Your task to perform on an android device: uninstall "ZOOM Cloud Meetings" Image 0: 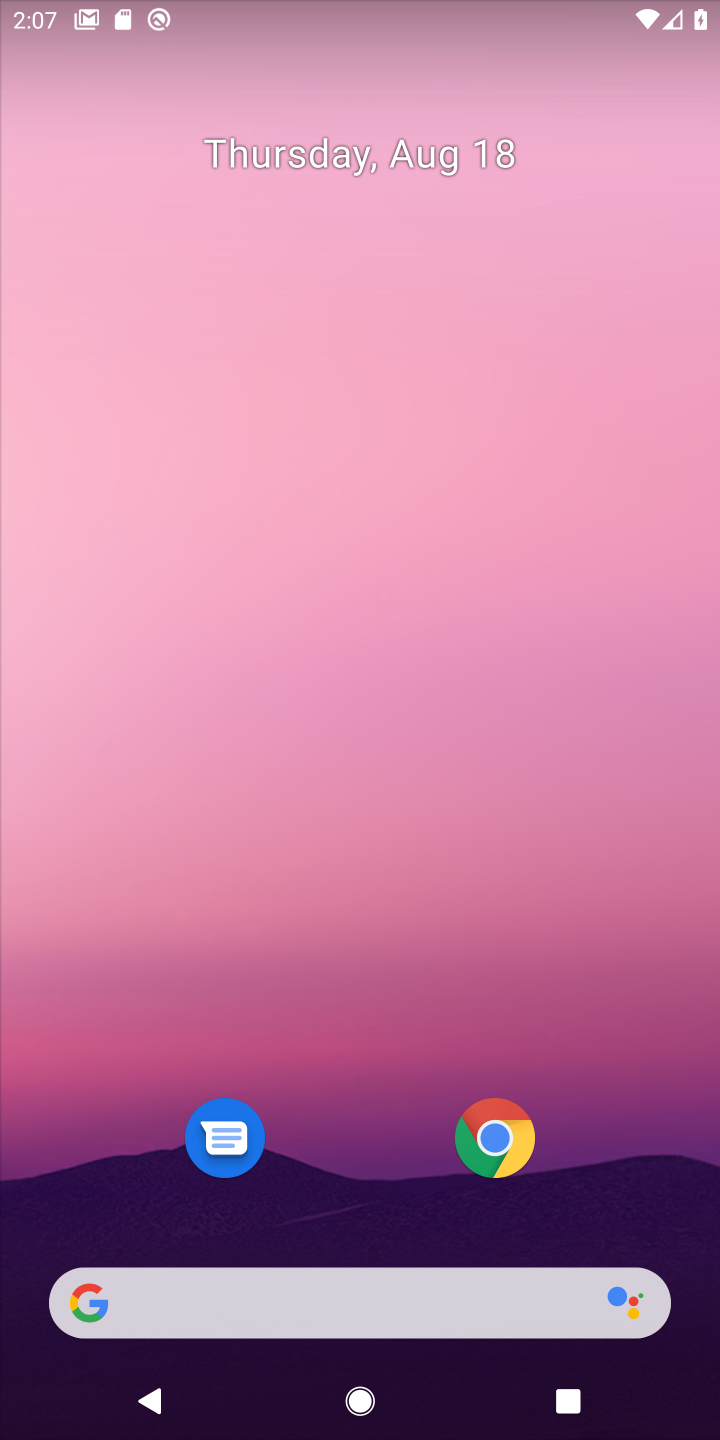
Step 0: drag from (359, 1341) to (440, 264)
Your task to perform on an android device: uninstall "ZOOM Cloud Meetings" Image 1: 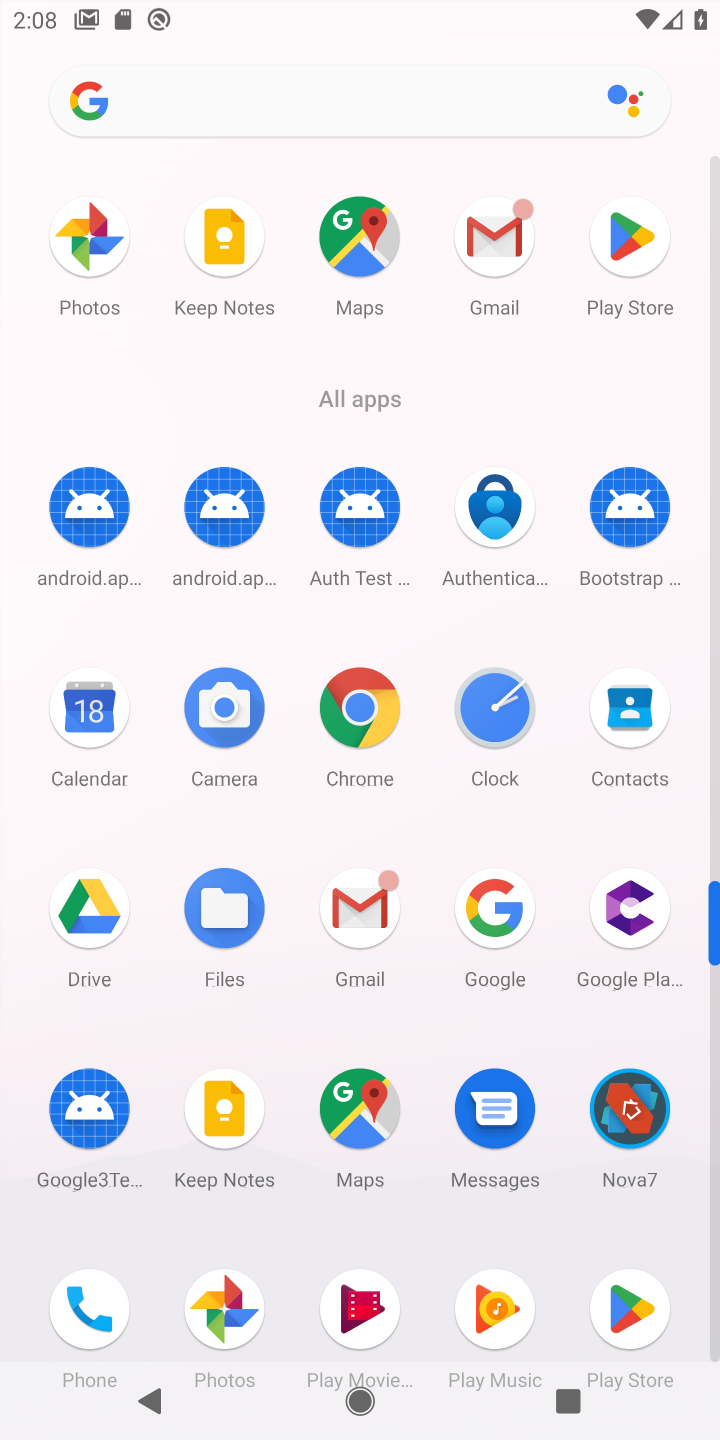
Step 1: drag from (491, 1099) to (593, 309)
Your task to perform on an android device: uninstall "ZOOM Cloud Meetings" Image 2: 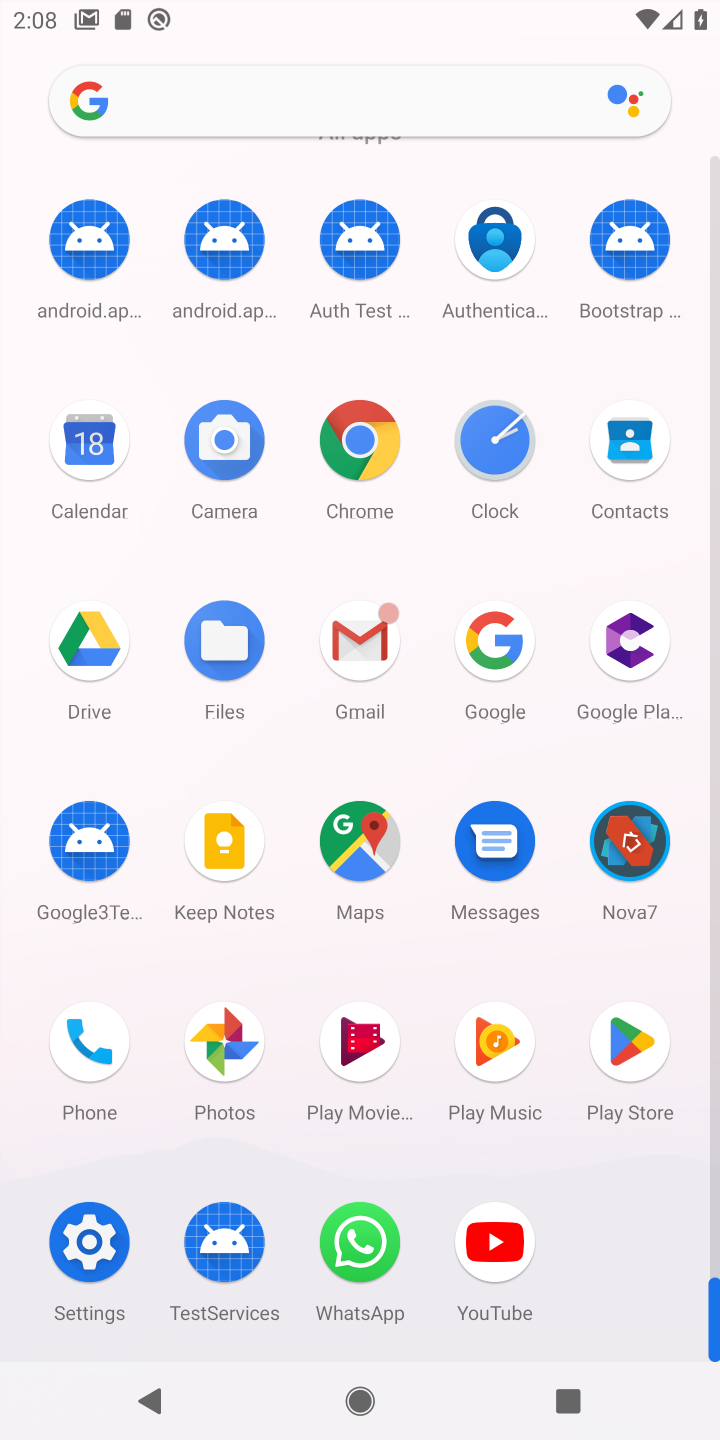
Step 2: click (628, 1048)
Your task to perform on an android device: uninstall "ZOOM Cloud Meetings" Image 3: 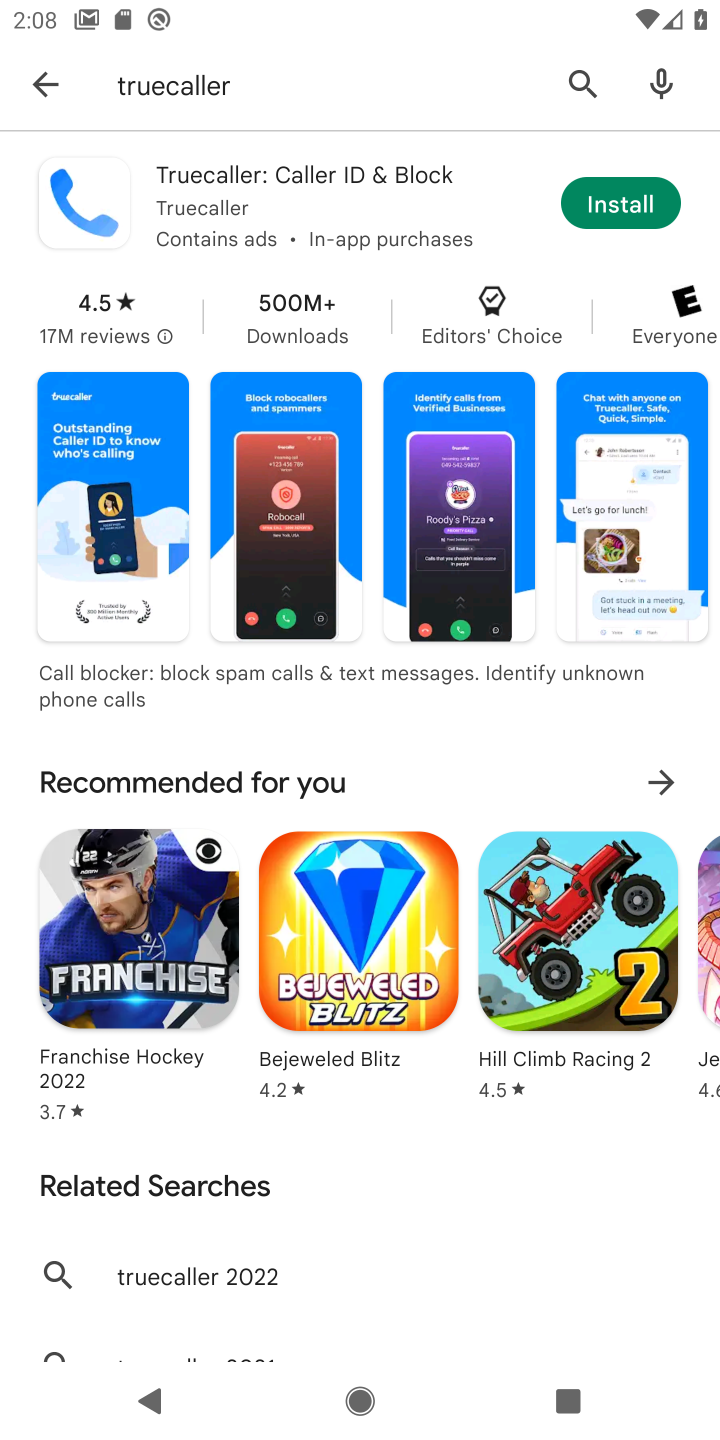
Step 3: click (41, 96)
Your task to perform on an android device: uninstall "ZOOM Cloud Meetings" Image 4: 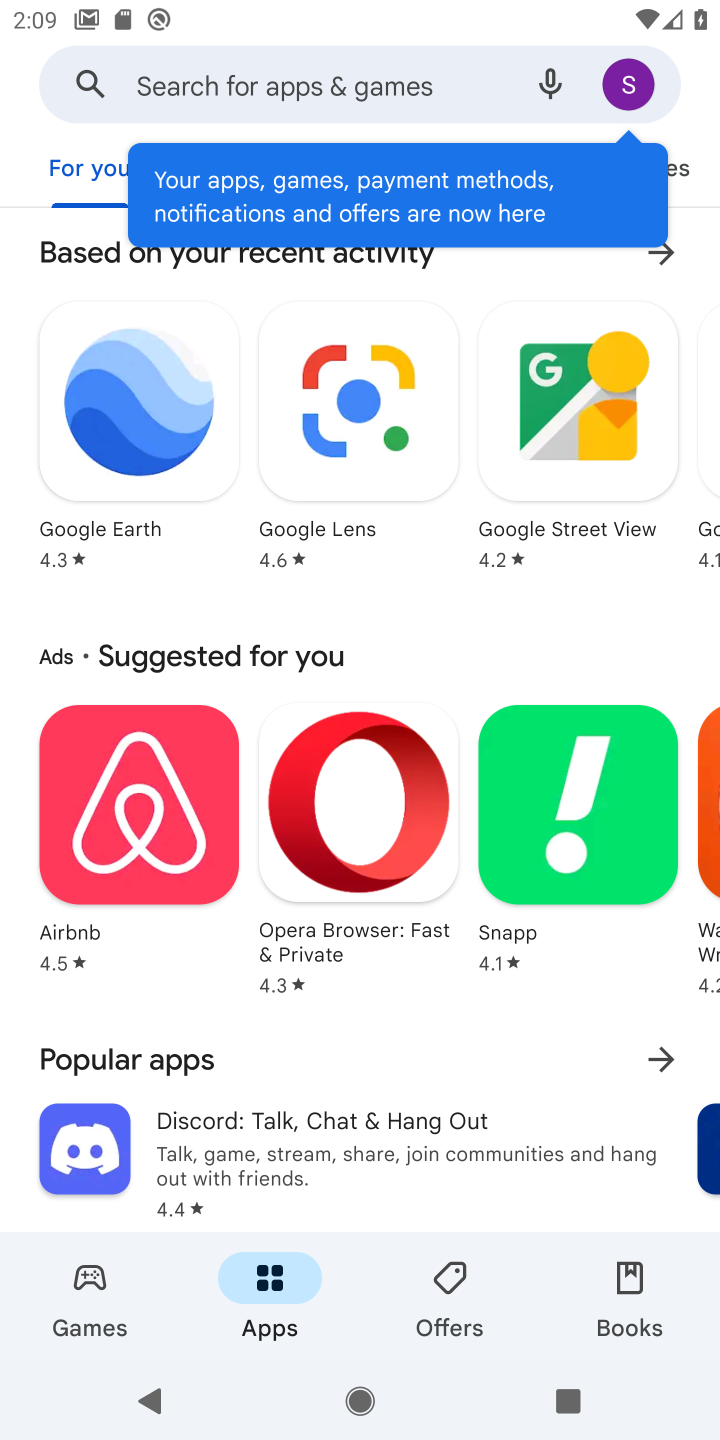
Step 4: click (231, 79)
Your task to perform on an android device: uninstall "ZOOM Cloud Meetings" Image 5: 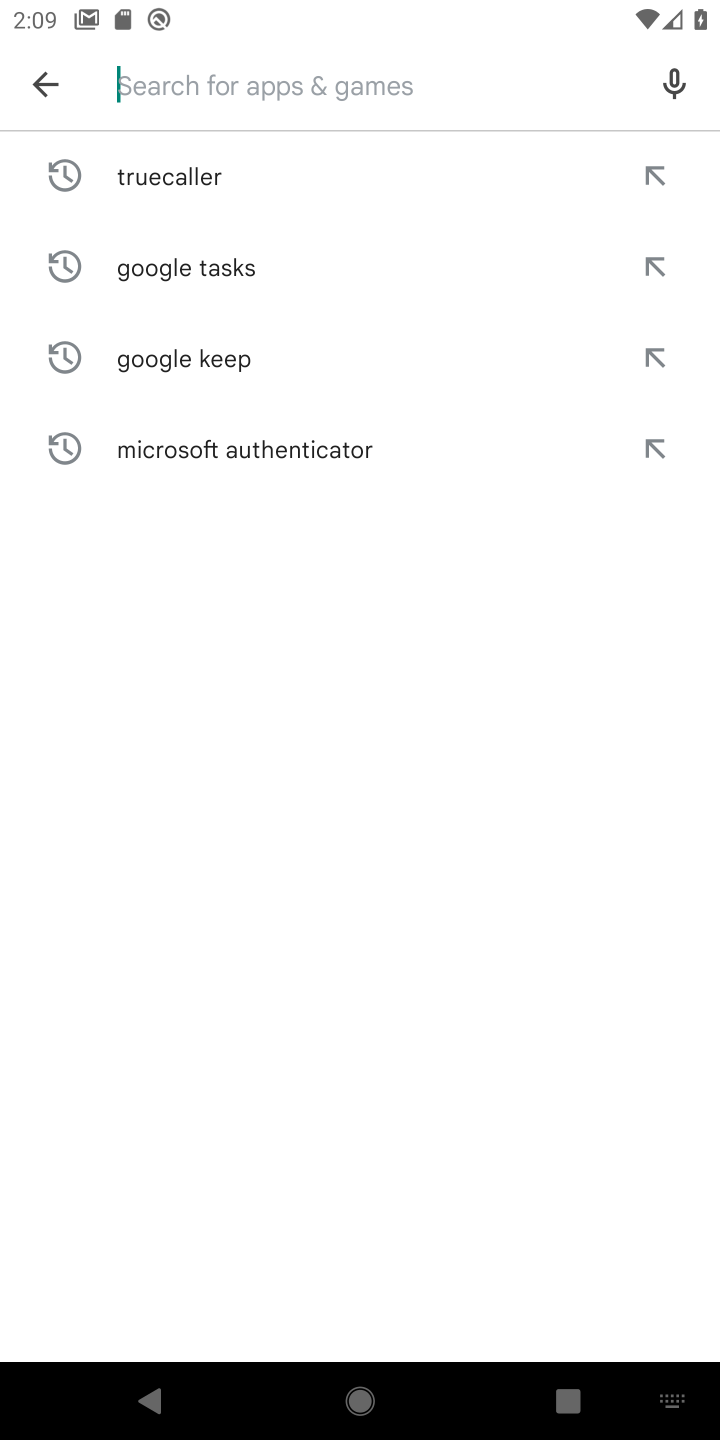
Step 5: type "ZOOM Cloud Meetings"
Your task to perform on an android device: uninstall "ZOOM Cloud Meetings" Image 6: 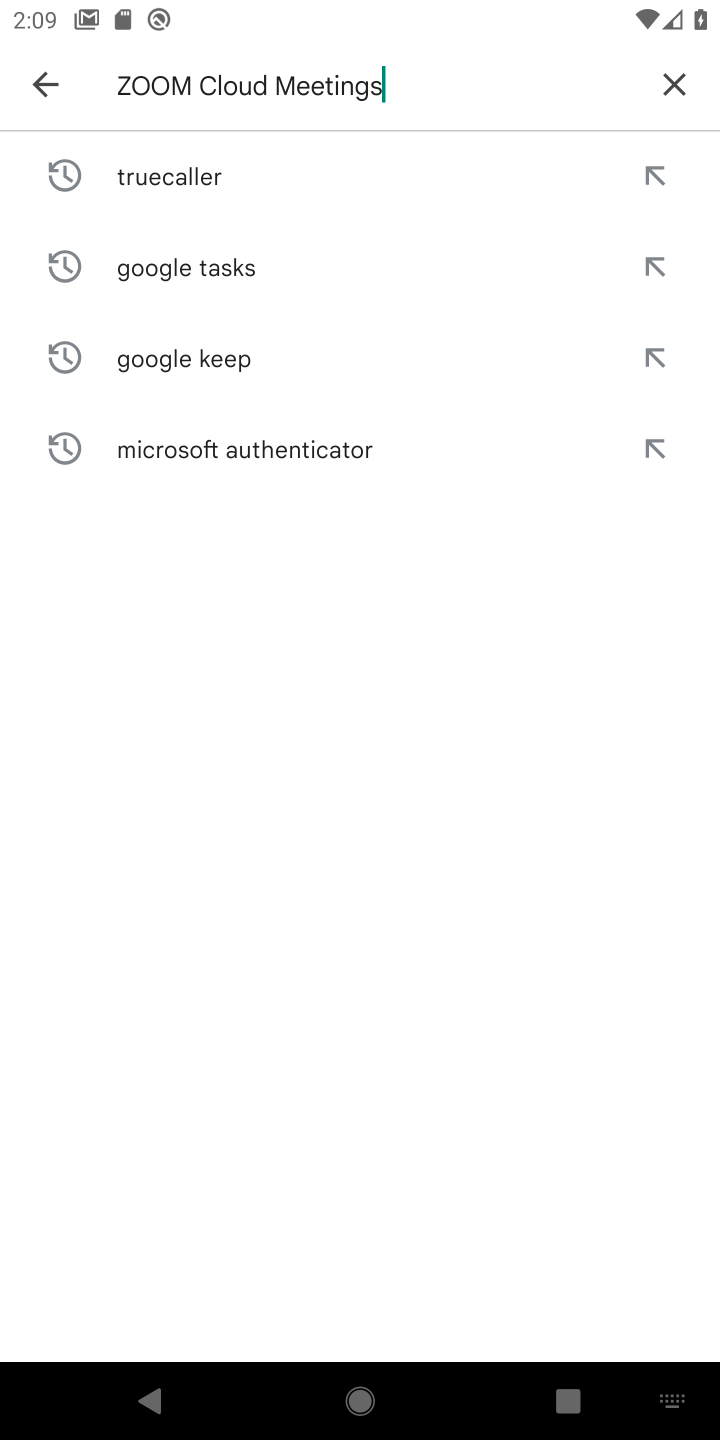
Step 6: type ""
Your task to perform on an android device: uninstall "ZOOM Cloud Meetings" Image 7: 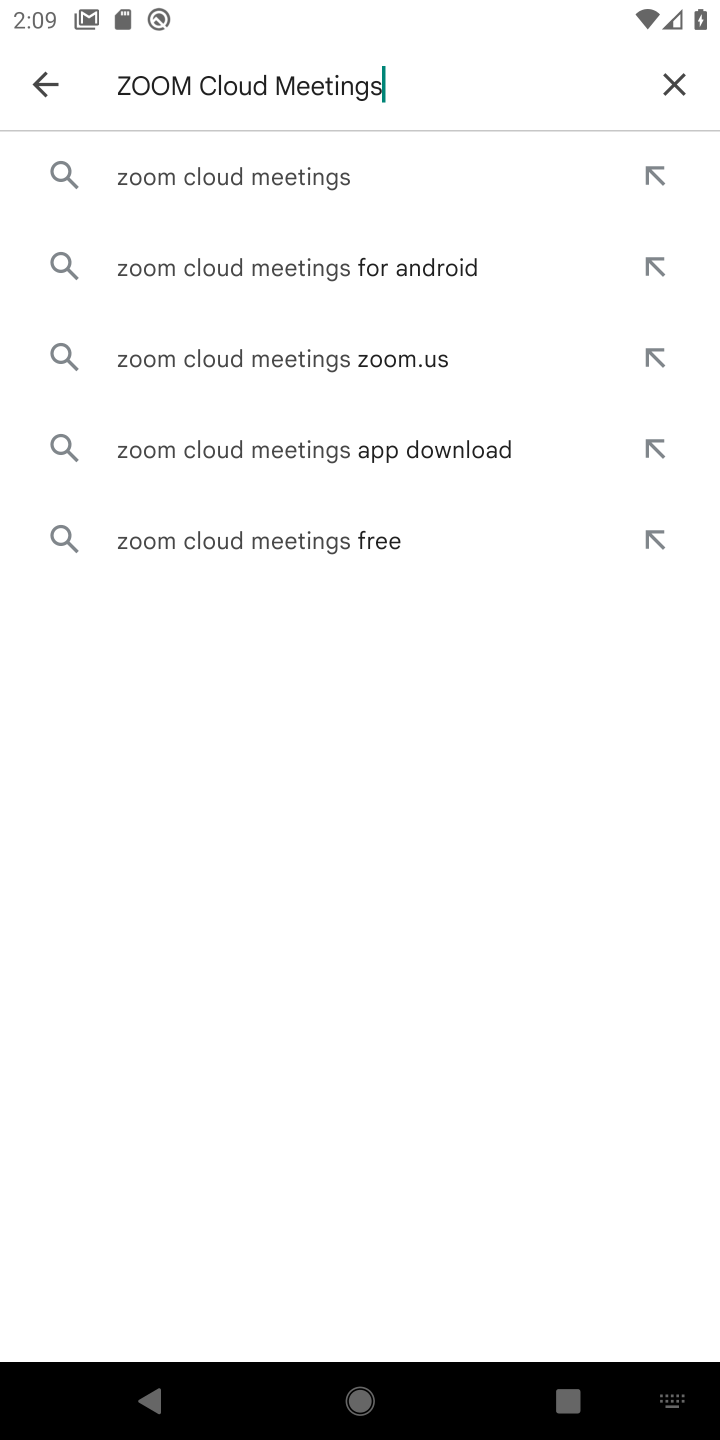
Step 7: click (281, 157)
Your task to perform on an android device: uninstall "ZOOM Cloud Meetings" Image 8: 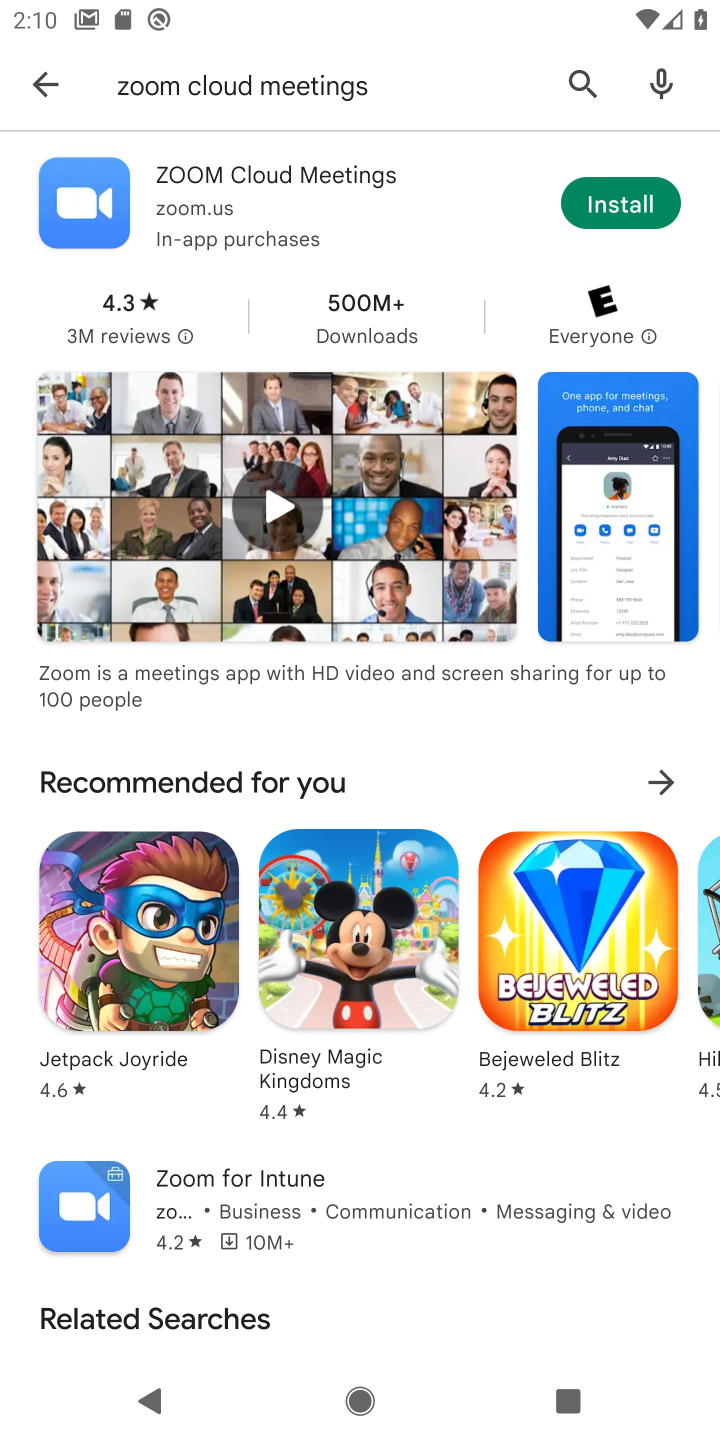
Step 8: task complete